Your task to perform on an android device: uninstall "Yahoo Mail" Image 0: 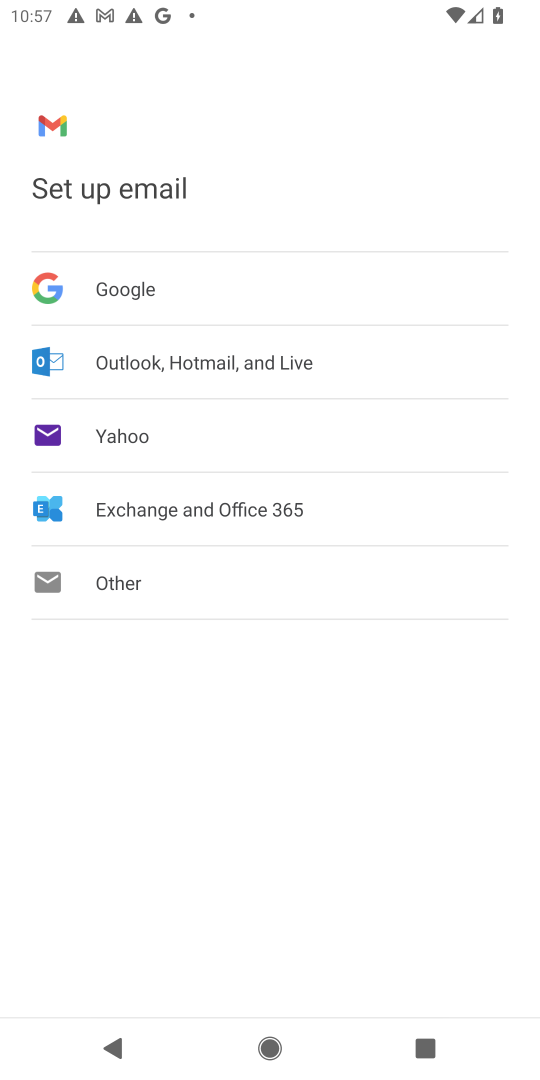
Step 0: press home button
Your task to perform on an android device: uninstall "Yahoo Mail" Image 1: 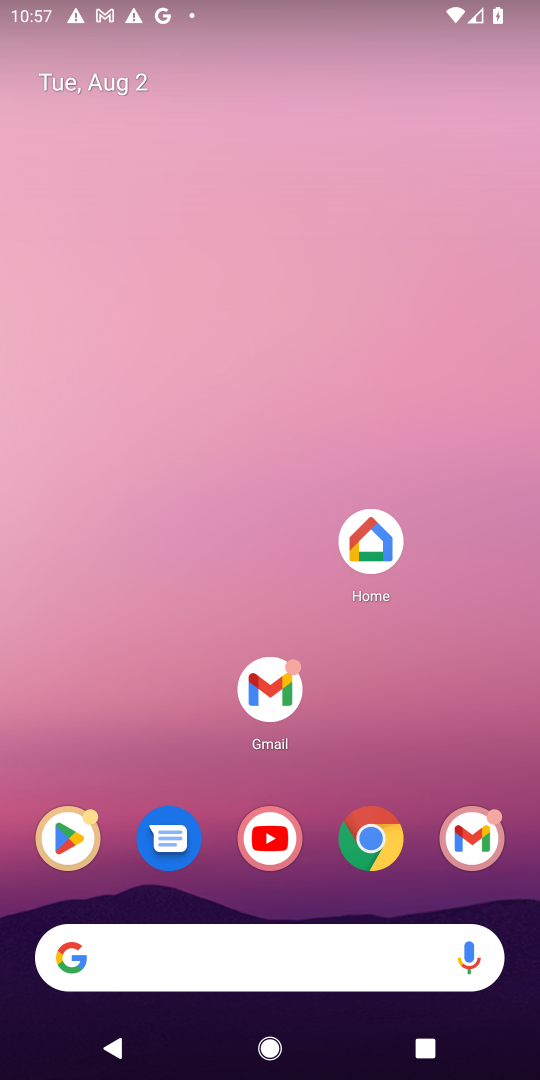
Step 1: drag from (394, 749) to (444, 118)
Your task to perform on an android device: uninstall "Yahoo Mail" Image 2: 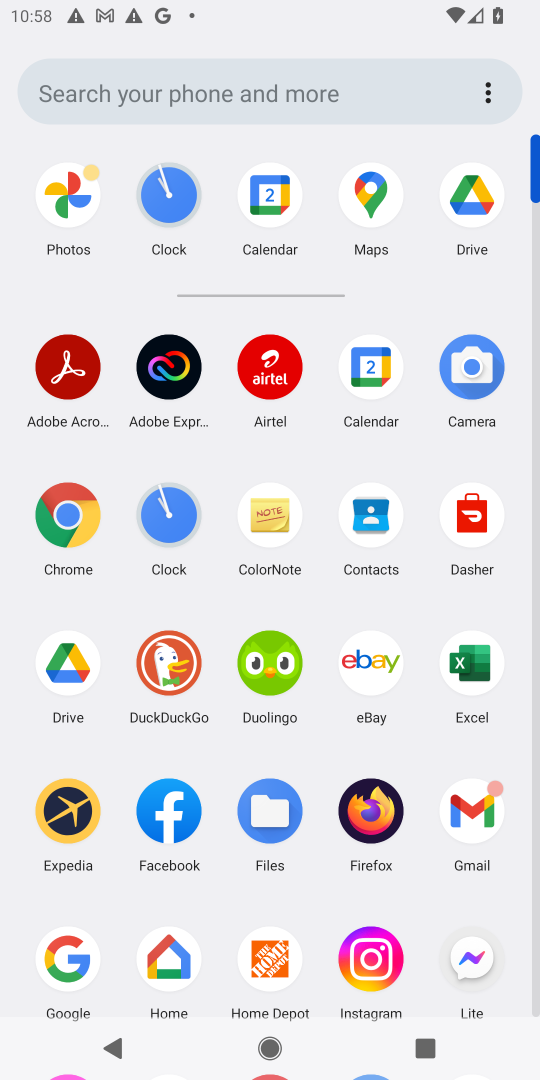
Step 2: drag from (415, 905) to (414, 640)
Your task to perform on an android device: uninstall "Yahoo Mail" Image 3: 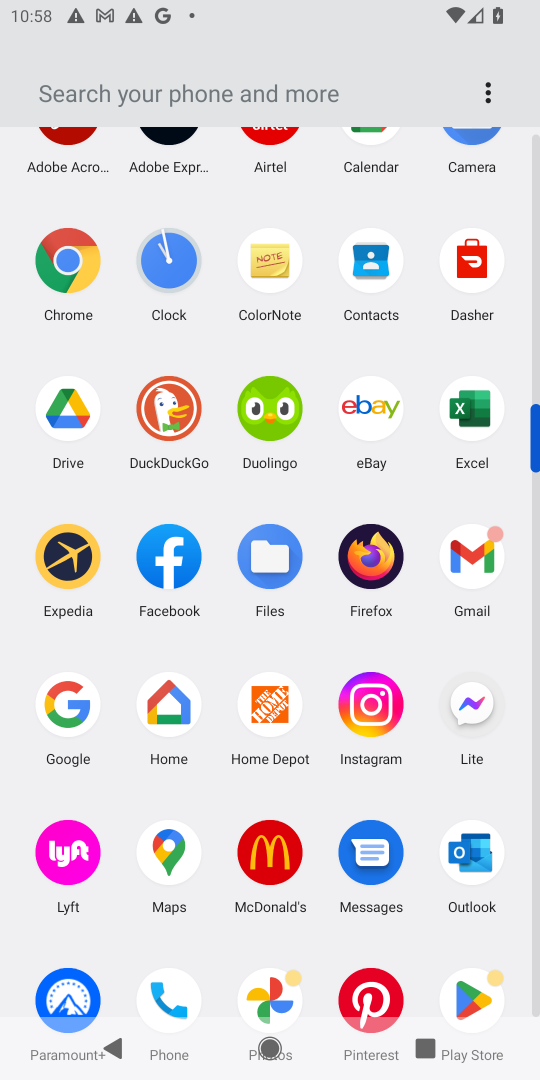
Step 3: drag from (413, 924) to (420, 643)
Your task to perform on an android device: uninstall "Yahoo Mail" Image 4: 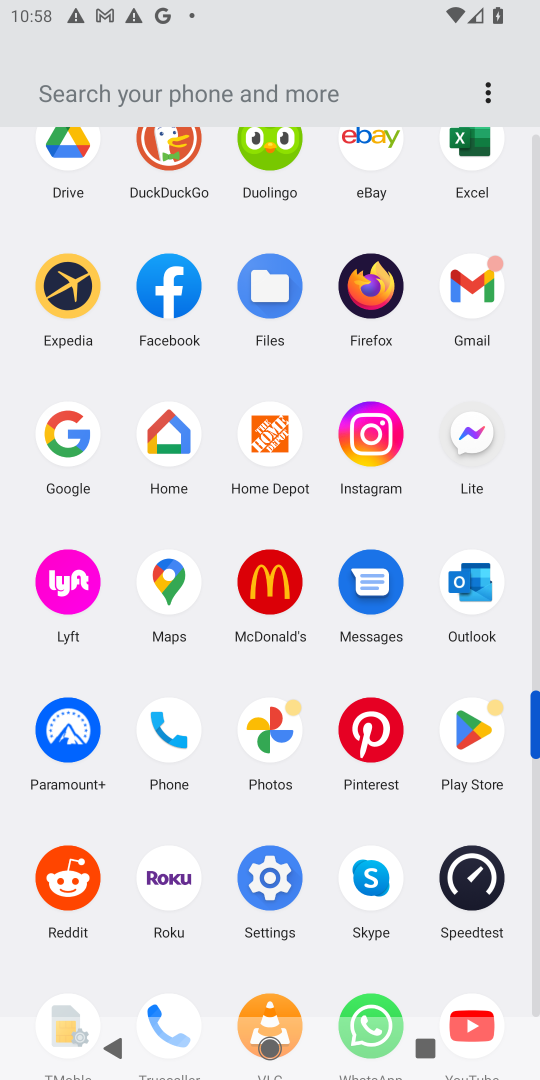
Step 4: click (473, 729)
Your task to perform on an android device: uninstall "Yahoo Mail" Image 5: 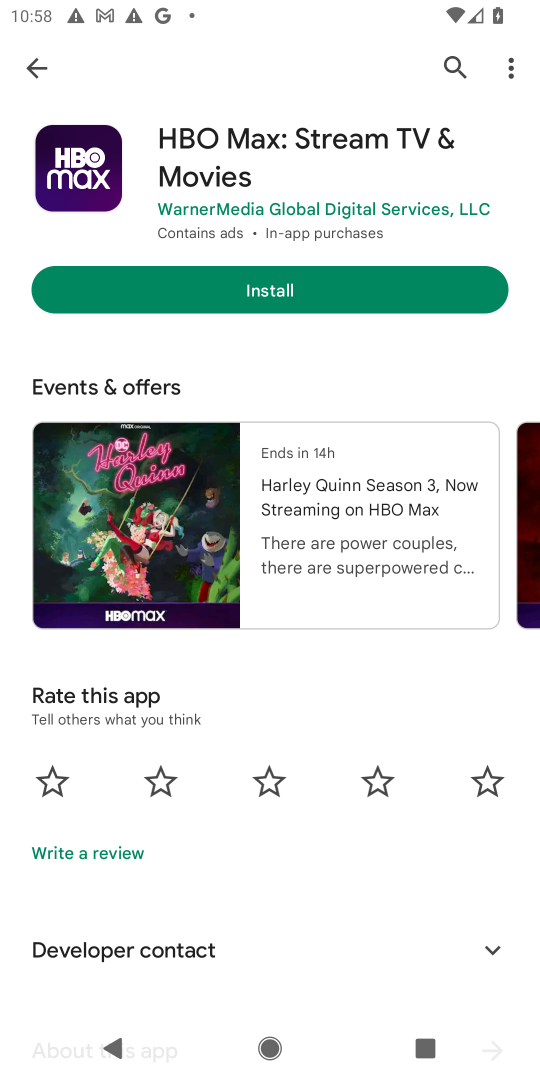
Step 5: click (450, 60)
Your task to perform on an android device: uninstall "Yahoo Mail" Image 6: 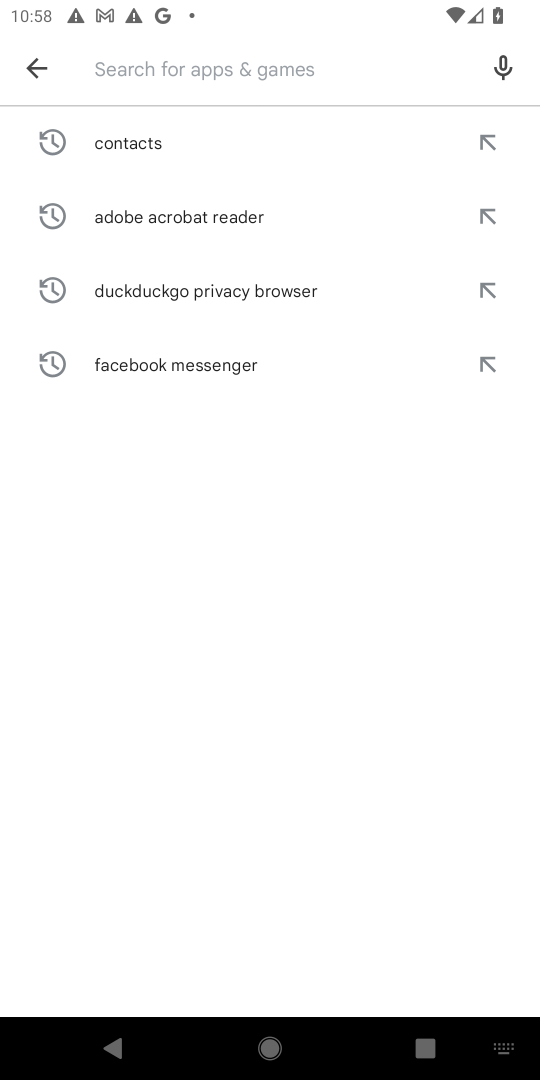
Step 6: click (345, 68)
Your task to perform on an android device: uninstall "Yahoo Mail" Image 7: 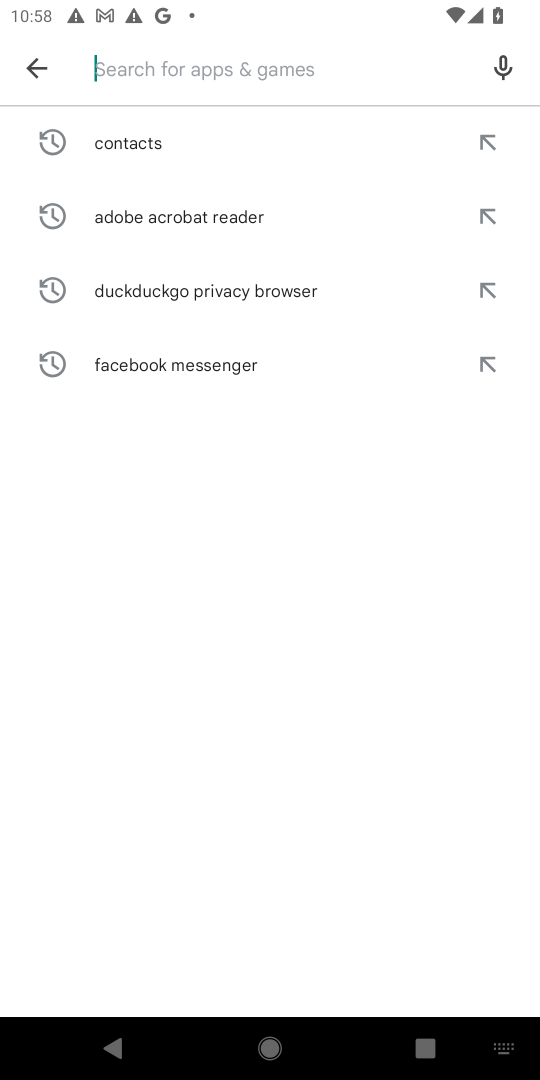
Step 7: type "yahoo mail"
Your task to perform on an android device: uninstall "Yahoo Mail" Image 8: 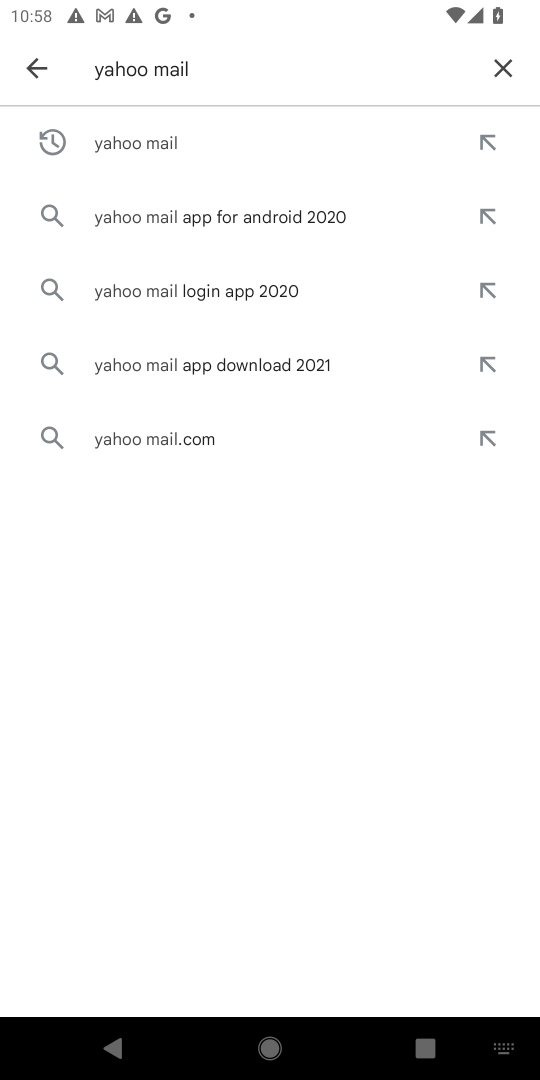
Step 8: click (195, 141)
Your task to perform on an android device: uninstall "Yahoo Mail" Image 9: 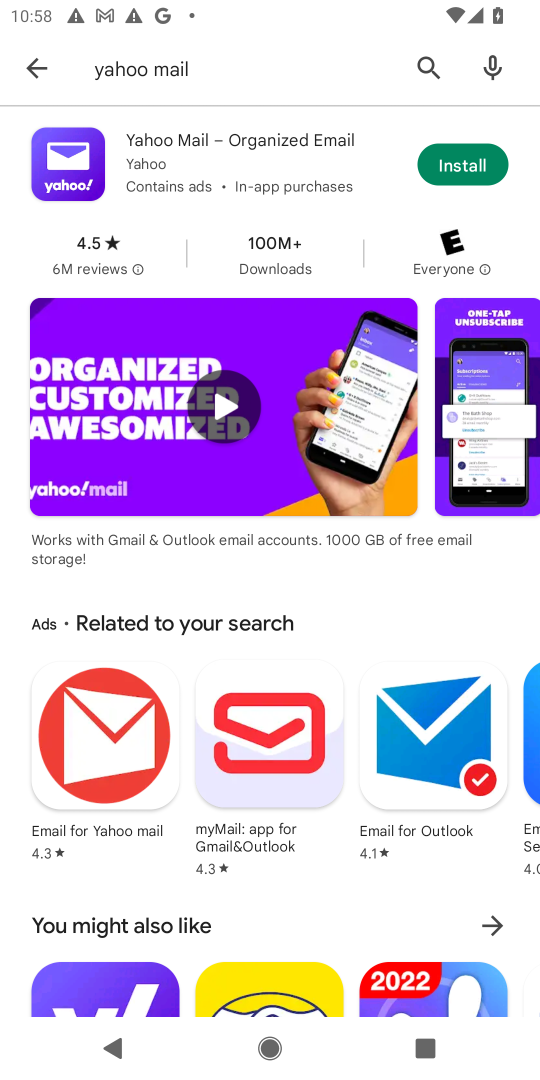
Step 9: task complete